Your task to perform on an android device: Check the weather Image 0: 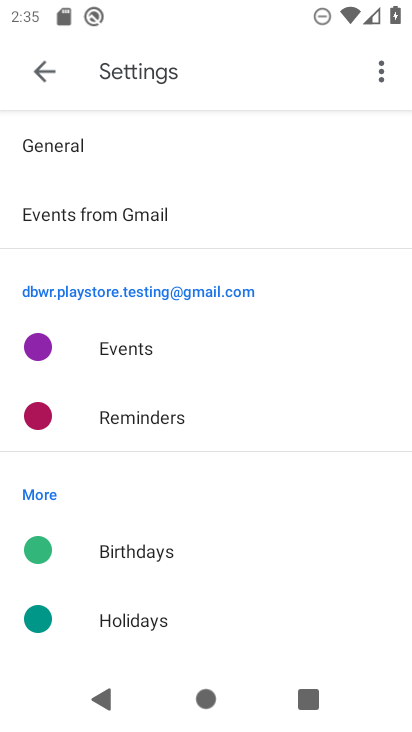
Step 0: press home button
Your task to perform on an android device: Check the weather Image 1: 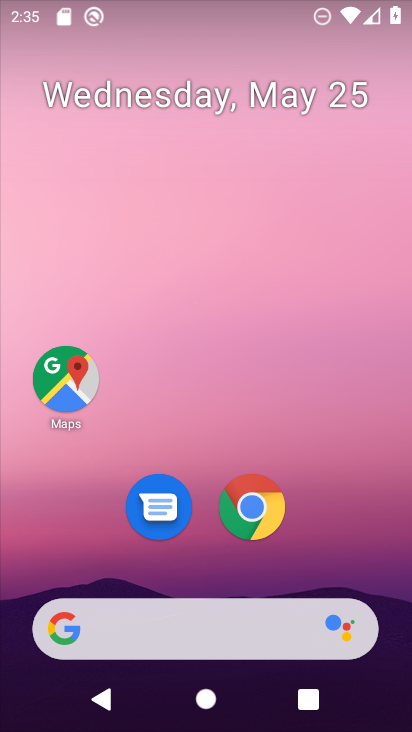
Step 1: drag from (246, 630) to (299, 294)
Your task to perform on an android device: Check the weather Image 2: 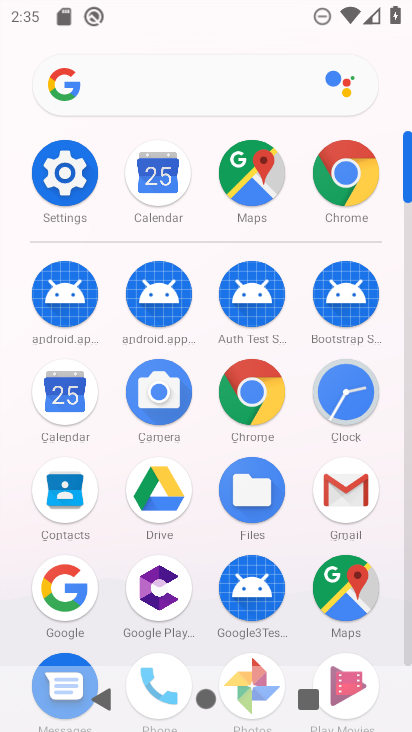
Step 2: click (62, 597)
Your task to perform on an android device: Check the weather Image 3: 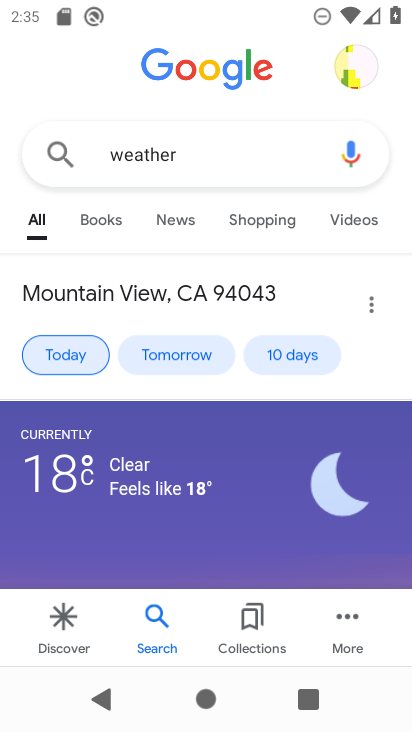
Step 3: task complete